Your task to perform on an android device: move an email to a new category in the gmail app Image 0: 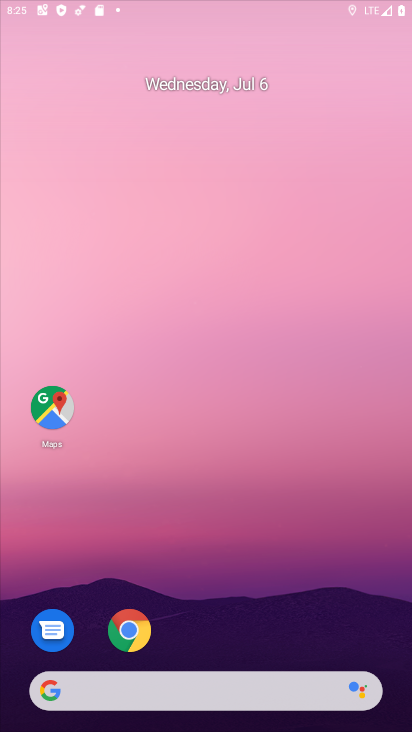
Step 0: click (127, 627)
Your task to perform on an android device: move an email to a new category in the gmail app Image 1: 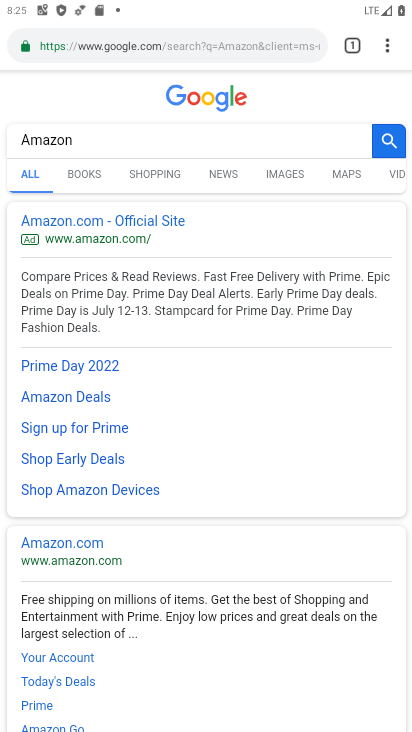
Step 1: press back button
Your task to perform on an android device: move an email to a new category in the gmail app Image 2: 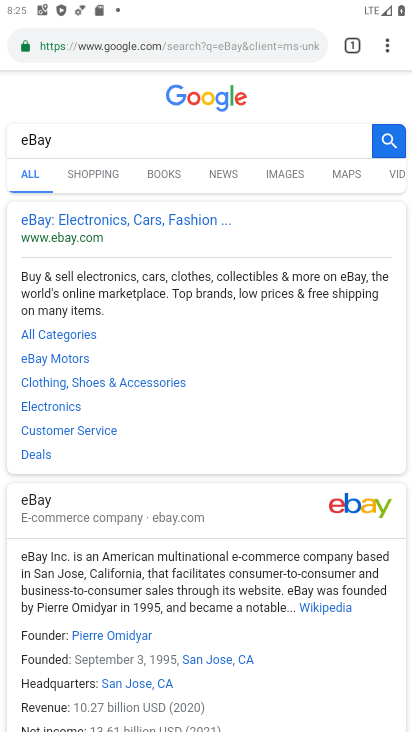
Step 2: press back button
Your task to perform on an android device: move an email to a new category in the gmail app Image 3: 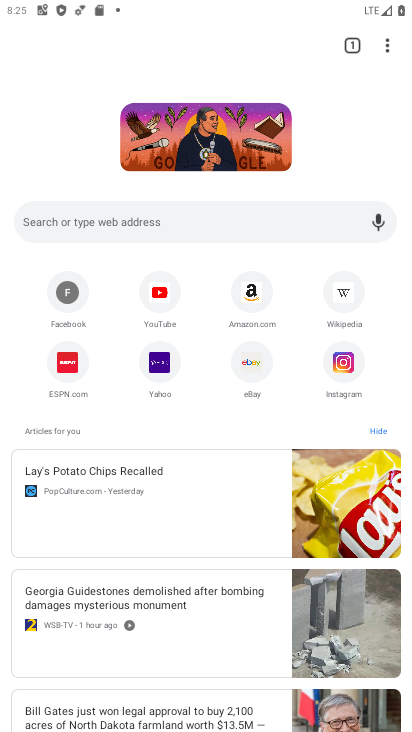
Step 3: press home button
Your task to perform on an android device: move an email to a new category in the gmail app Image 4: 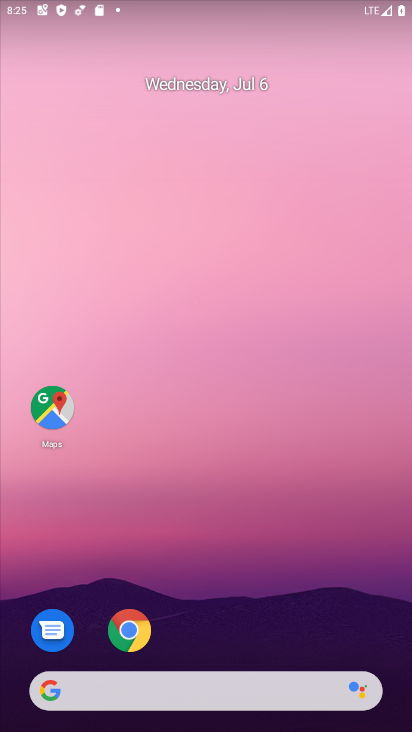
Step 4: drag from (396, 689) to (247, 119)
Your task to perform on an android device: move an email to a new category in the gmail app Image 5: 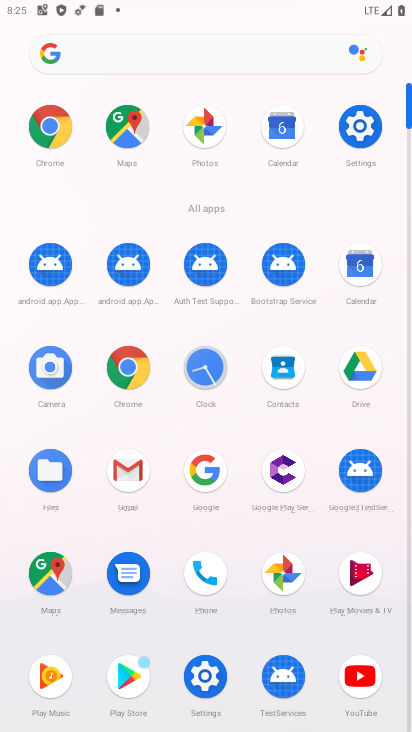
Step 5: click (129, 477)
Your task to perform on an android device: move an email to a new category in the gmail app Image 6: 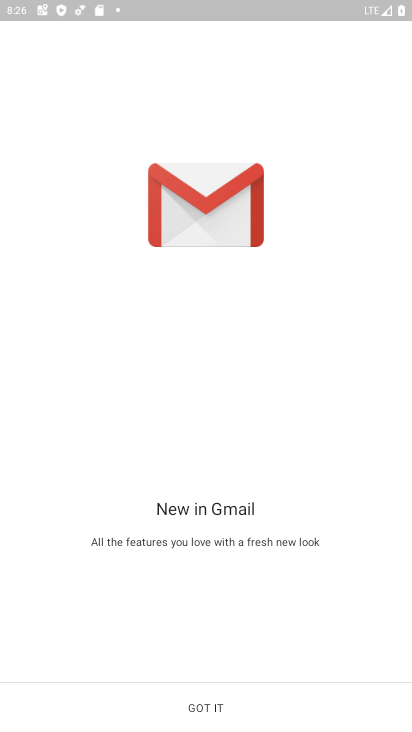
Step 6: click (189, 704)
Your task to perform on an android device: move an email to a new category in the gmail app Image 7: 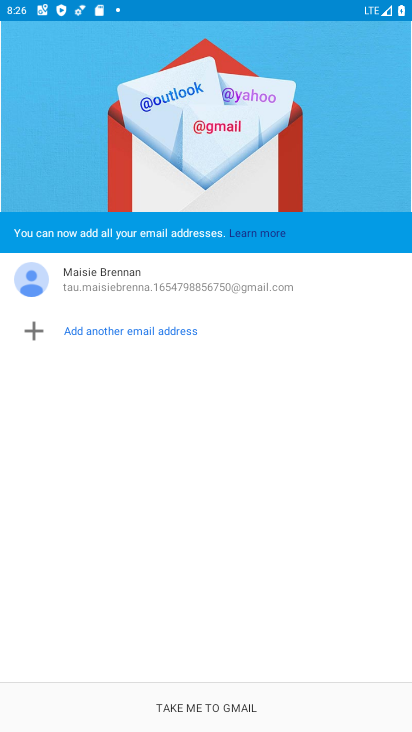
Step 7: click (190, 703)
Your task to perform on an android device: move an email to a new category in the gmail app Image 8: 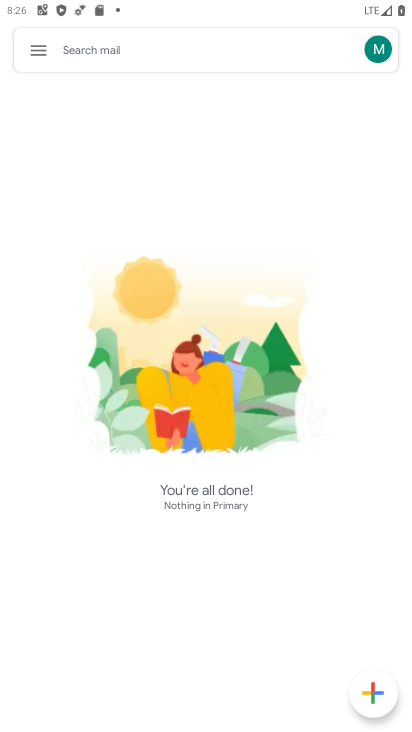
Step 8: task complete